Your task to perform on an android device: Go to Wikipedia Image 0: 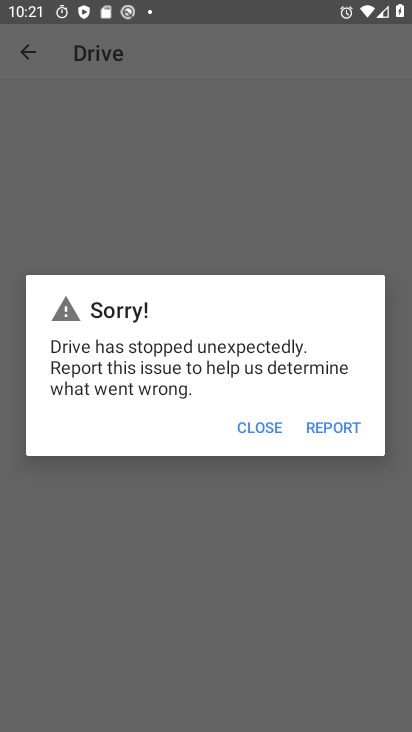
Step 0: press home button
Your task to perform on an android device: Go to Wikipedia Image 1: 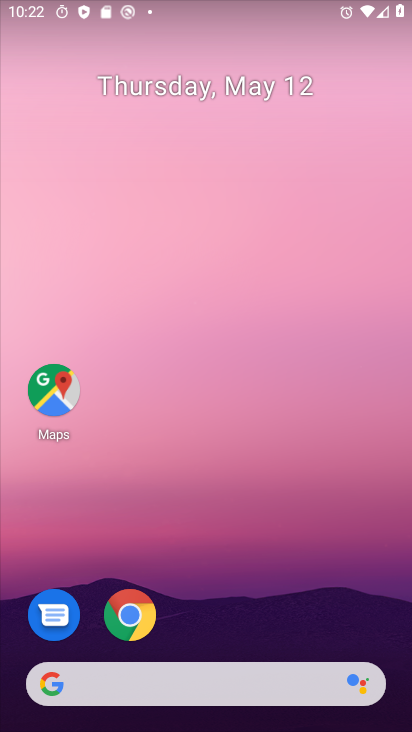
Step 1: click (137, 608)
Your task to perform on an android device: Go to Wikipedia Image 2: 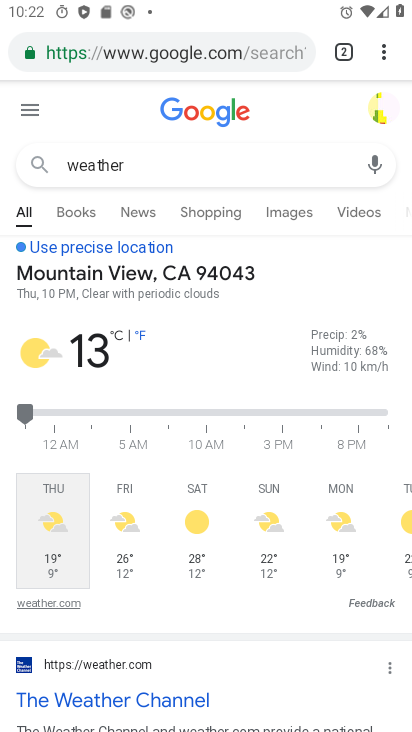
Step 2: click (172, 51)
Your task to perform on an android device: Go to Wikipedia Image 3: 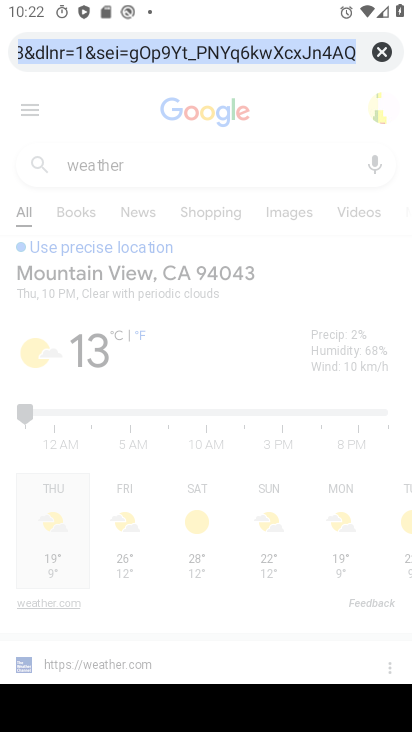
Step 3: type ""
Your task to perform on an android device: Go to Wikipedia Image 4: 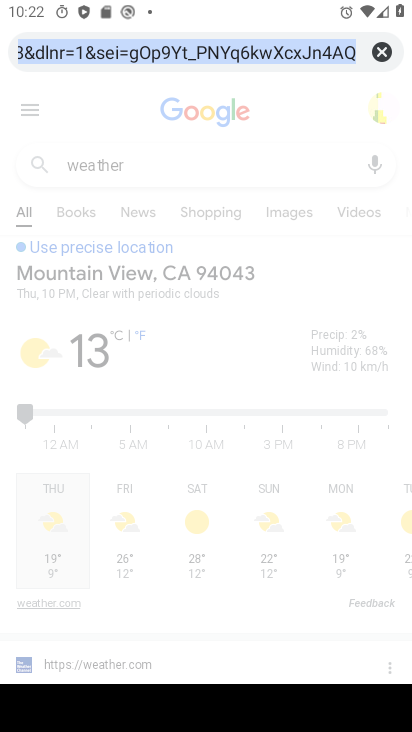
Step 4: type "wikipedia"
Your task to perform on an android device: Go to Wikipedia Image 5: 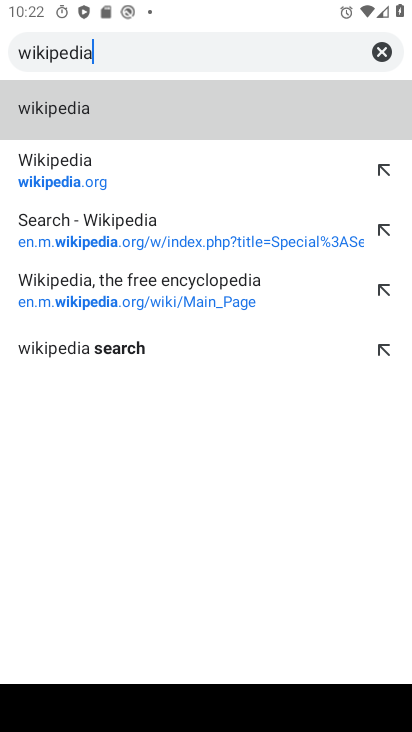
Step 5: click (55, 166)
Your task to perform on an android device: Go to Wikipedia Image 6: 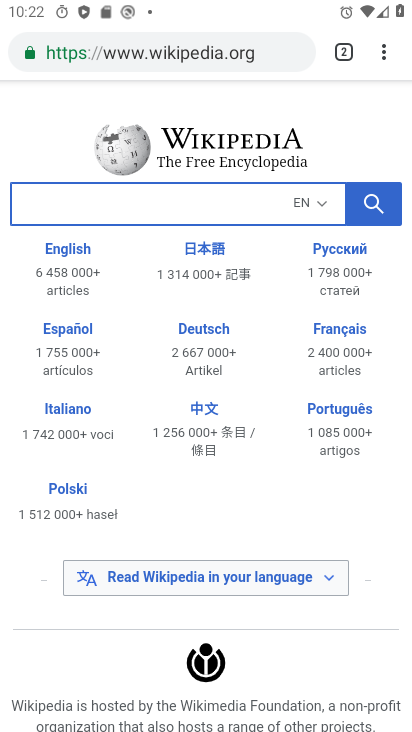
Step 6: task complete